Your task to perform on an android device: Search for sushi restaurants on Maps Image 0: 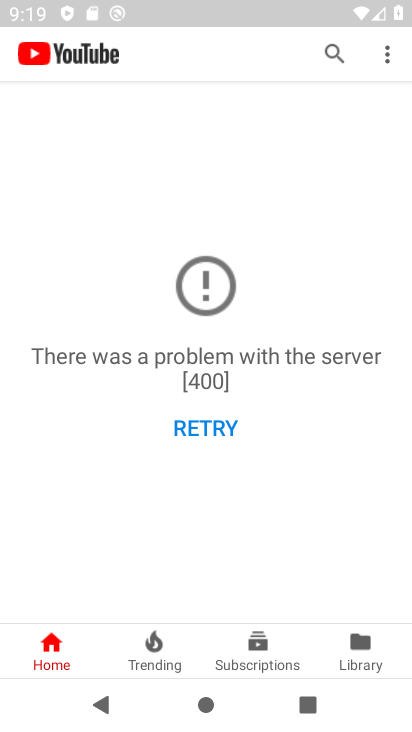
Step 0: press home button
Your task to perform on an android device: Search for sushi restaurants on Maps Image 1: 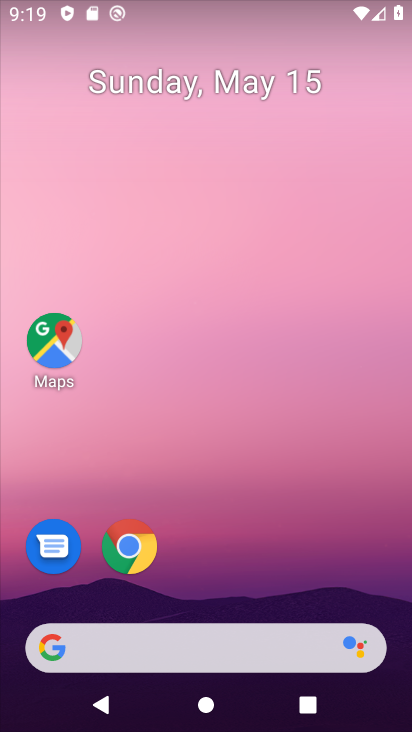
Step 1: click (50, 327)
Your task to perform on an android device: Search for sushi restaurants on Maps Image 2: 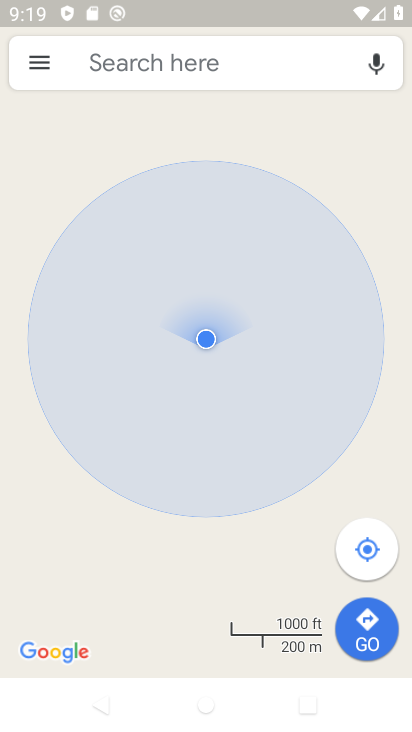
Step 2: click (210, 73)
Your task to perform on an android device: Search for sushi restaurants on Maps Image 3: 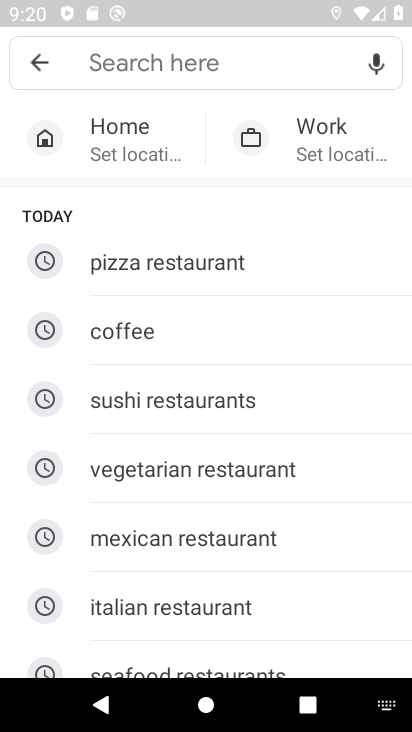
Step 3: type "Sushi "
Your task to perform on an android device: Search for sushi restaurants on Maps Image 4: 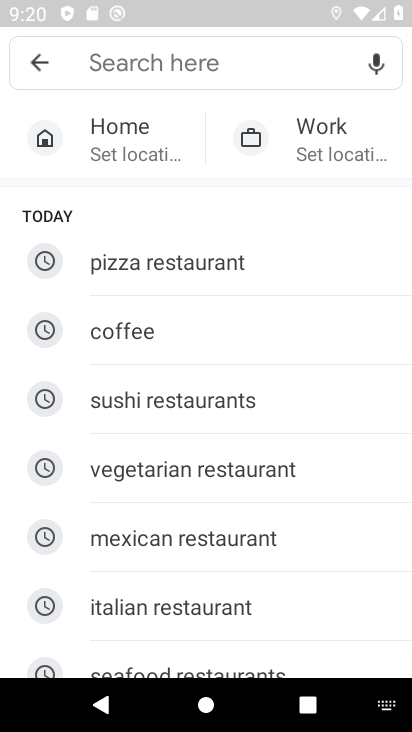
Step 4: click (250, 404)
Your task to perform on an android device: Search for sushi restaurants on Maps Image 5: 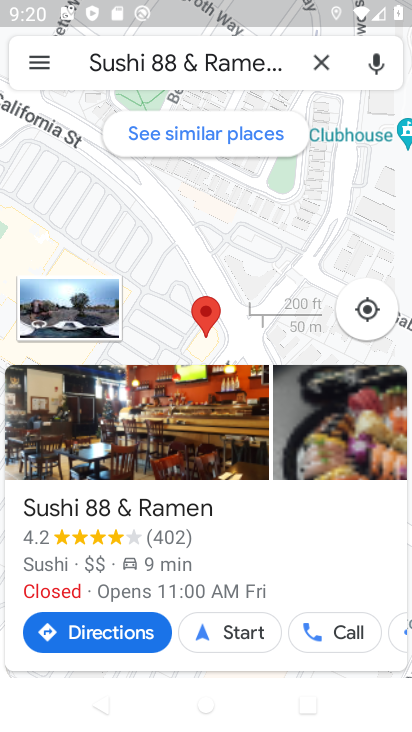
Step 5: task complete